Your task to perform on an android device: Open internet settings Image 0: 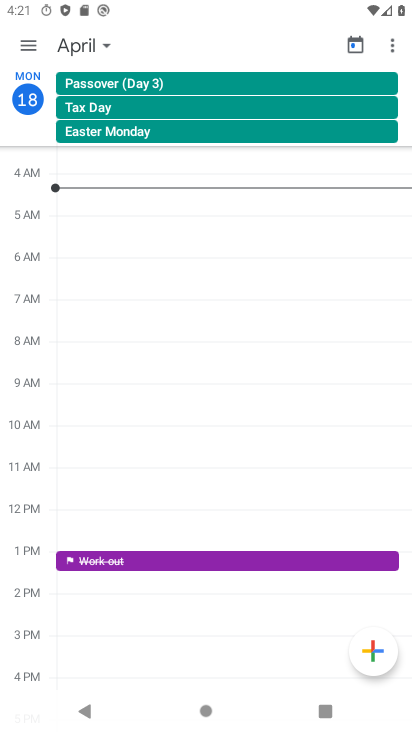
Step 0: click (138, 608)
Your task to perform on an android device: Open internet settings Image 1: 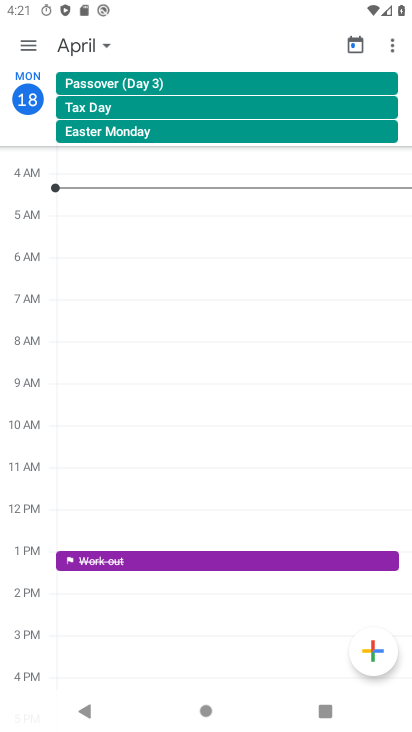
Step 1: drag from (259, 8) to (230, 543)
Your task to perform on an android device: Open internet settings Image 2: 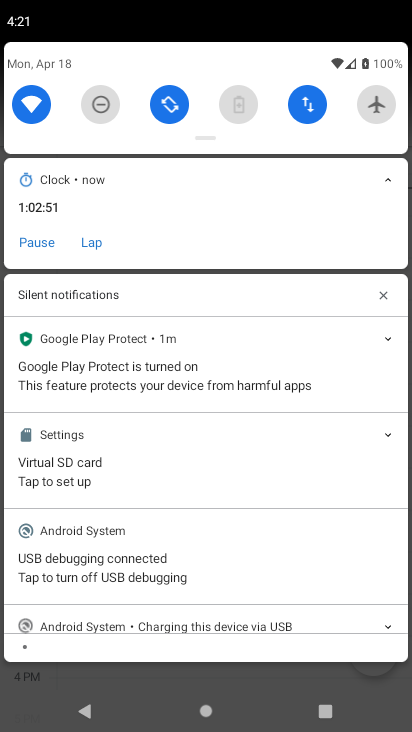
Step 2: drag from (197, 79) to (242, 608)
Your task to perform on an android device: Open internet settings Image 3: 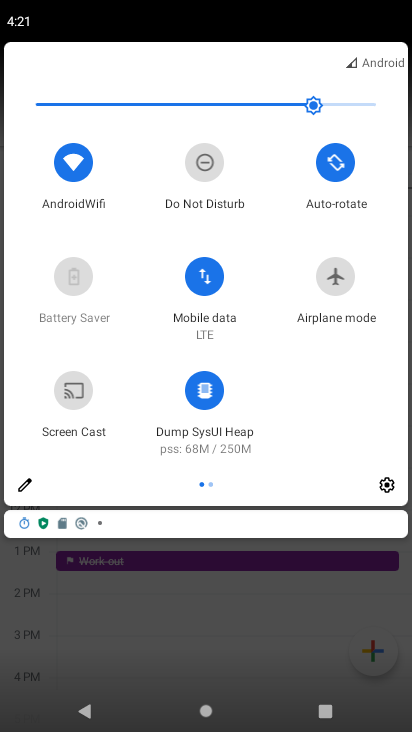
Step 3: click (384, 472)
Your task to perform on an android device: Open internet settings Image 4: 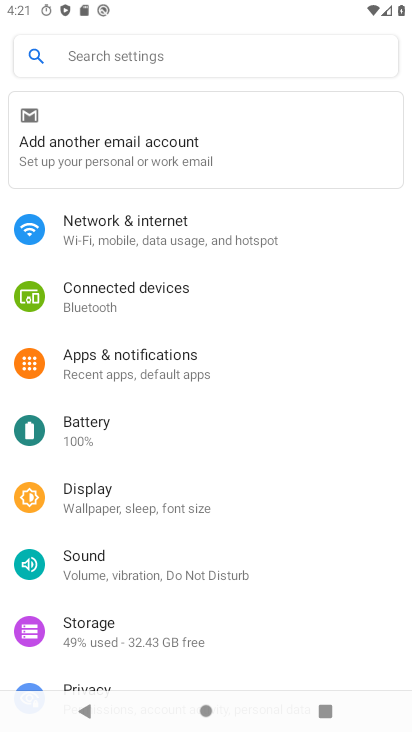
Step 4: click (140, 252)
Your task to perform on an android device: Open internet settings Image 5: 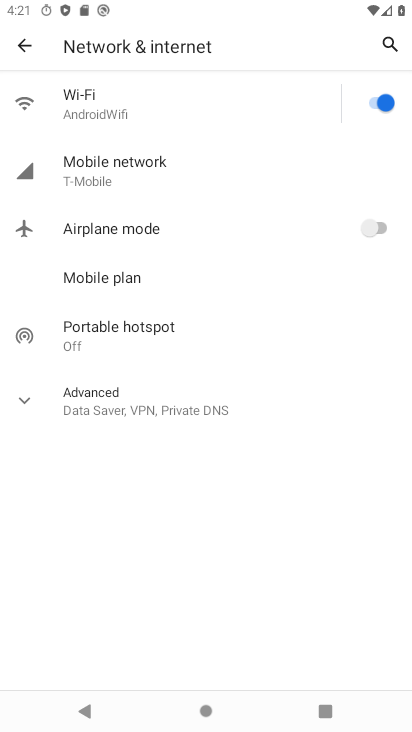
Step 5: task complete